Your task to perform on an android device: open wifi settings Image 0: 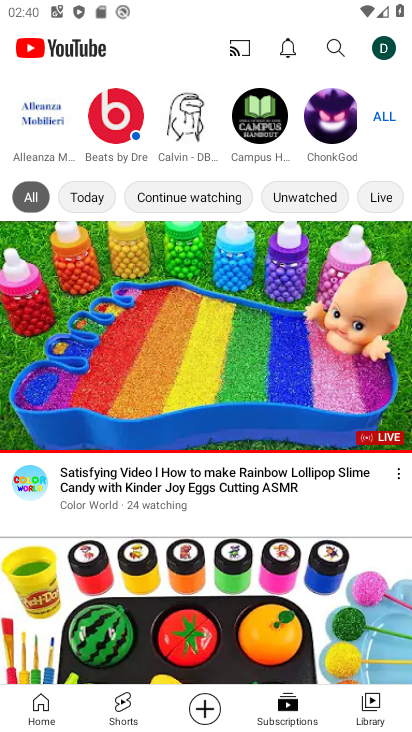
Step 0: press back button
Your task to perform on an android device: open wifi settings Image 1: 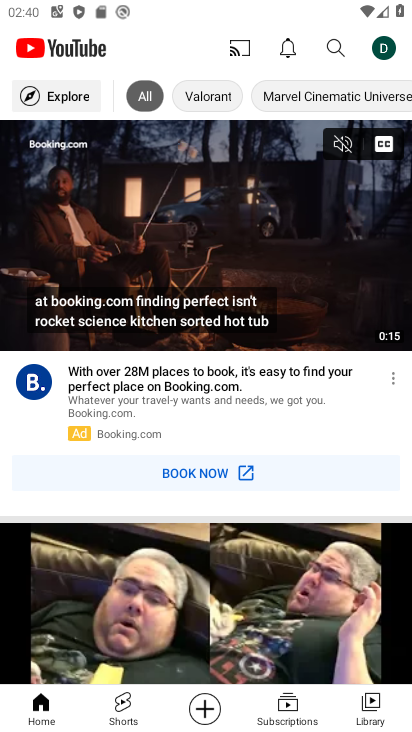
Step 1: press home button
Your task to perform on an android device: open wifi settings Image 2: 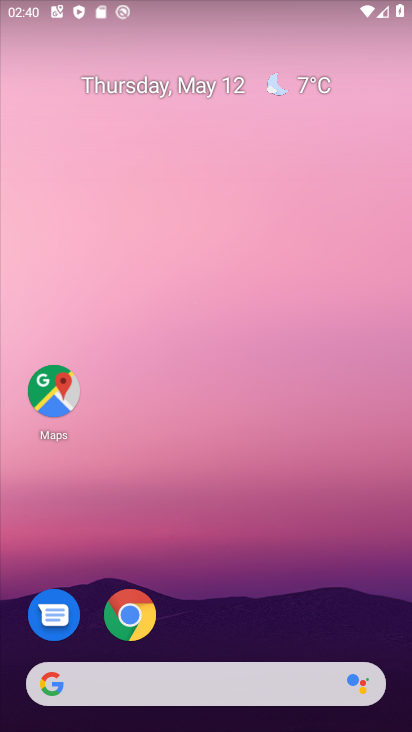
Step 2: drag from (284, 678) to (285, 74)
Your task to perform on an android device: open wifi settings Image 3: 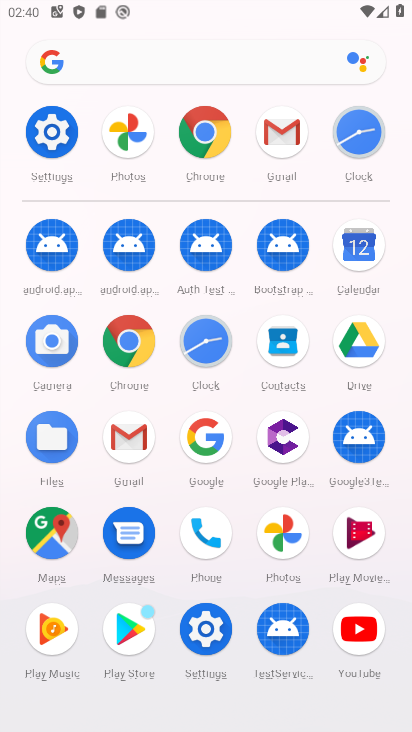
Step 3: click (55, 124)
Your task to perform on an android device: open wifi settings Image 4: 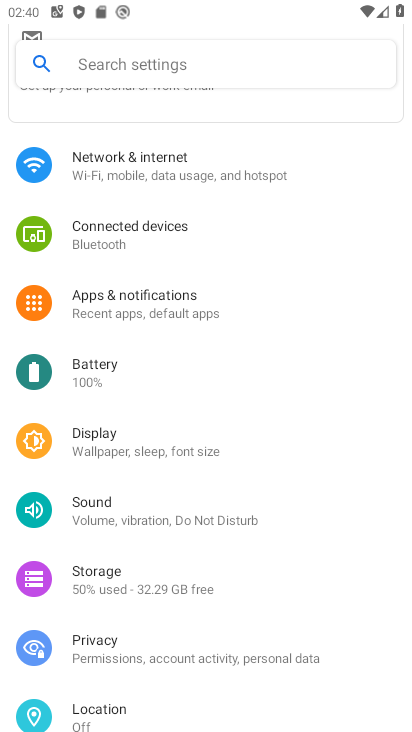
Step 4: drag from (208, 169) to (242, 614)
Your task to perform on an android device: open wifi settings Image 5: 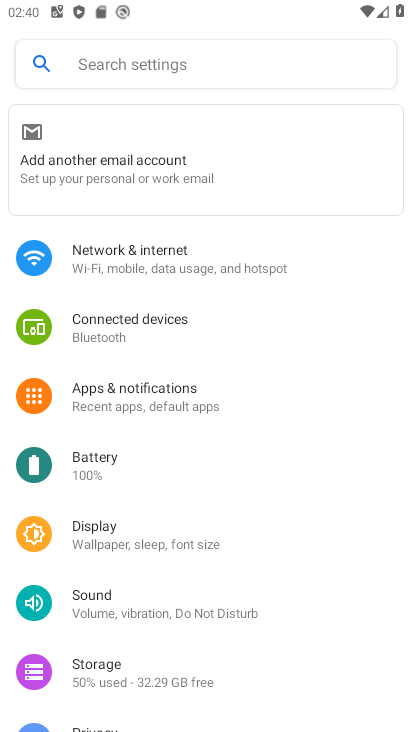
Step 5: click (194, 255)
Your task to perform on an android device: open wifi settings Image 6: 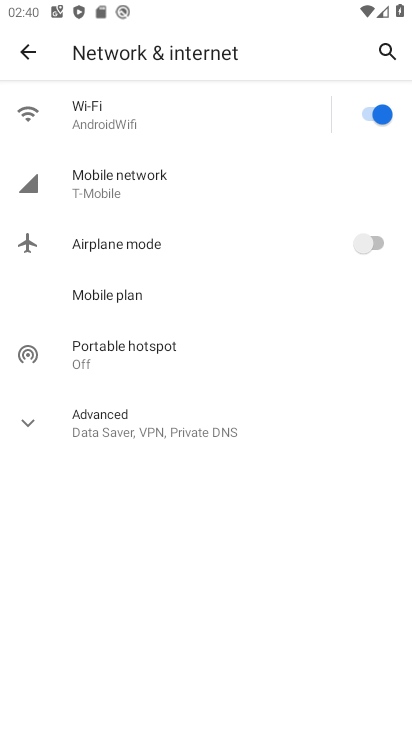
Step 6: click (148, 123)
Your task to perform on an android device: open wifi settings Image 7: 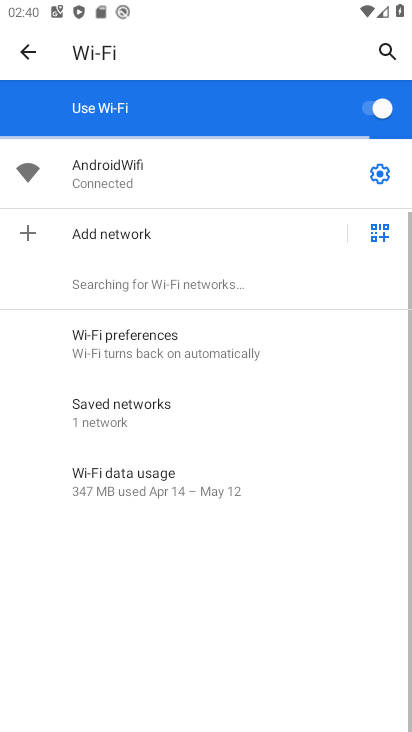
Step 7: task complete